Your task to perform on an android device: delete a single message in the gmail app Image 0: 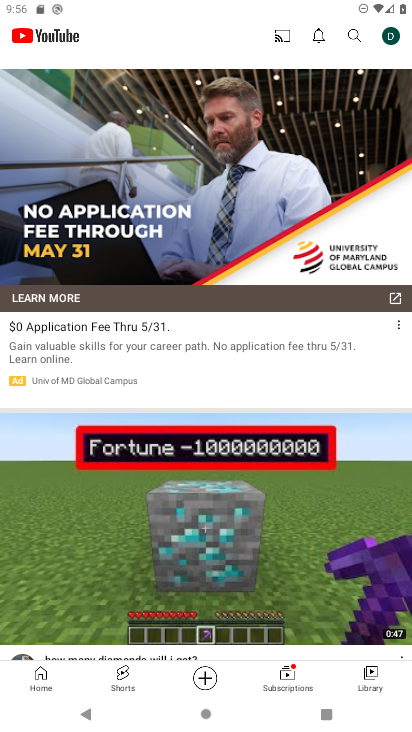
Step 0: press home button
Your task to perform on an android device: delete a single message in the gmail app Image 1: 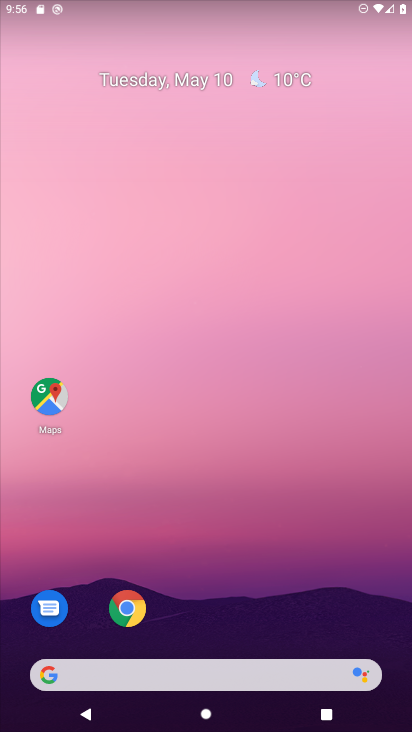
Step 1: drag from (313, 623) to (256, 106)
Your task to perform on an android device: delete a single message in the gmail app Image 2: 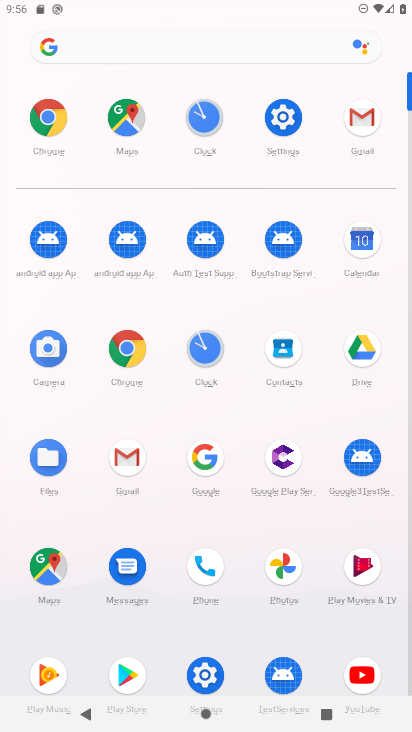
Step 2: click (125, 462)
Your task to perform on an android device: delete a single message in the gmail app Image 3: 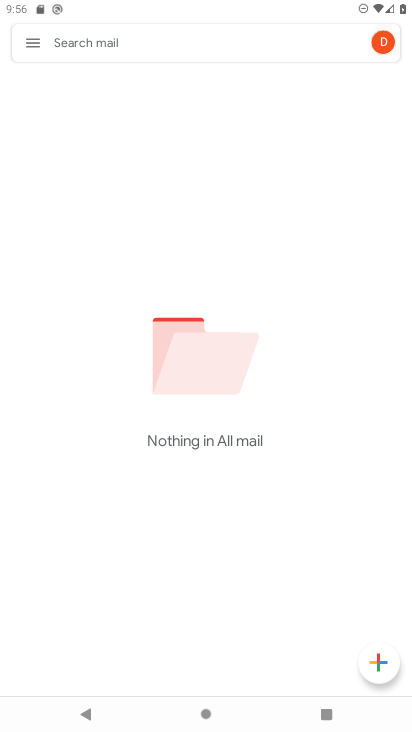
Step 3: click (38, 46)
Your task to perform on an android device: delete a single message in the gmail app Image 4: 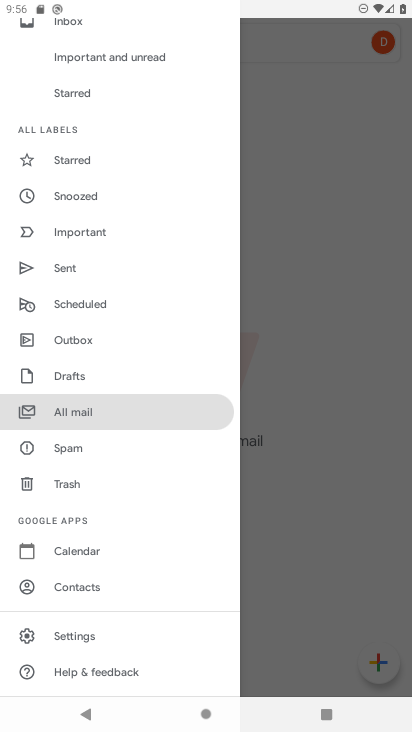
Step 4: drag from (98, 137) to (141, 652)
Your task to perform on an android device: delete a single message in the gmail app Image 5: 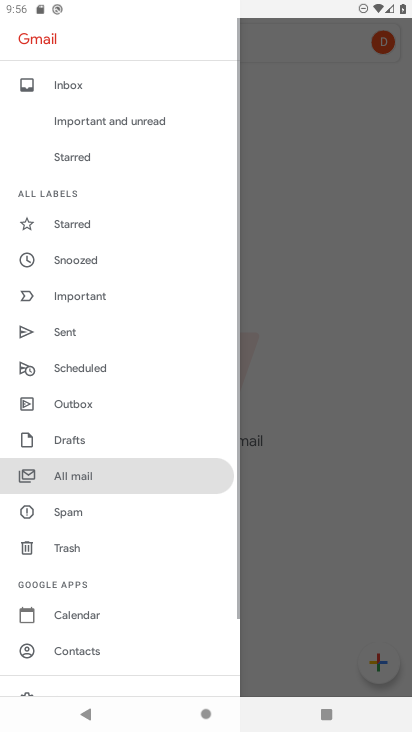
Step 5: click (100, 96)
Your task to perform on an android device: delete a single message in the gmail app Image 6: 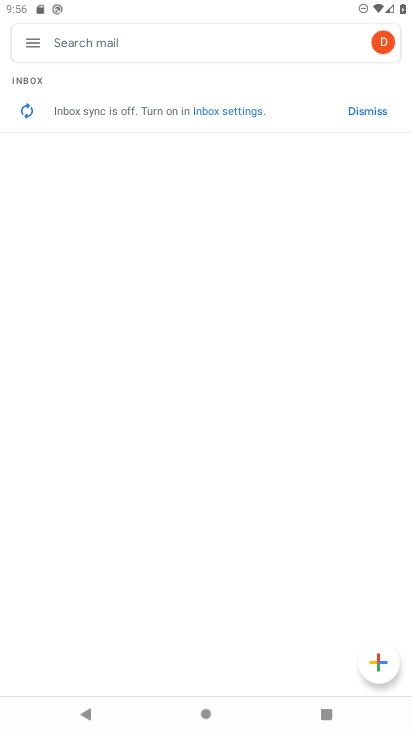
Step 6: task complete